Your task to perform on an android device: allow cookies in the chrome app Image 0: 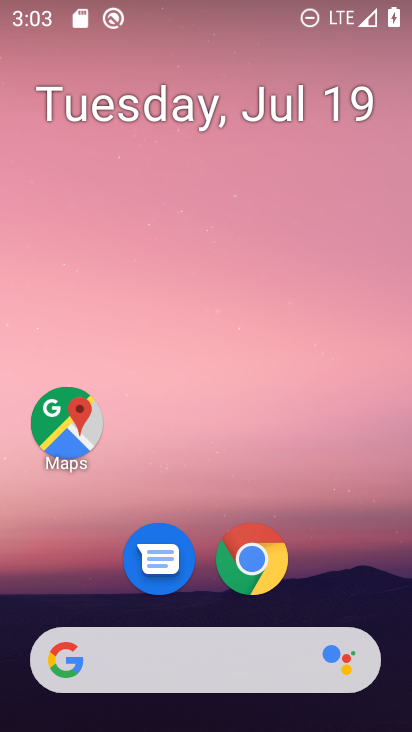
Step 0: drag from (215, 615) to (155, 115)
Your task to perform on an android device: allow cookies in the chrome app Image 1: 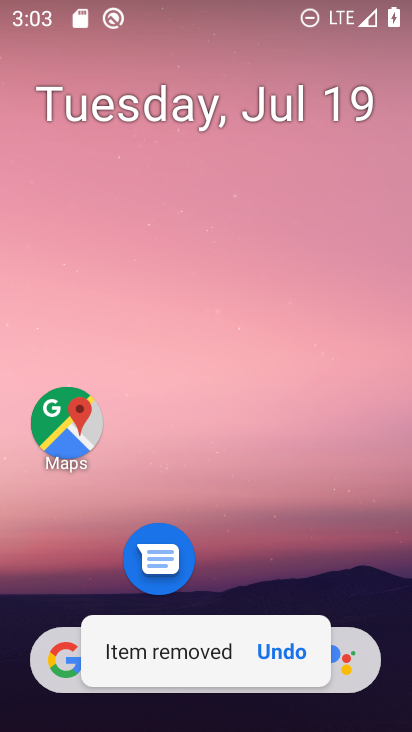
Step 1: click (310, 433)
Your task to perform on an android device: allow cookies in the chrome app Image 2: 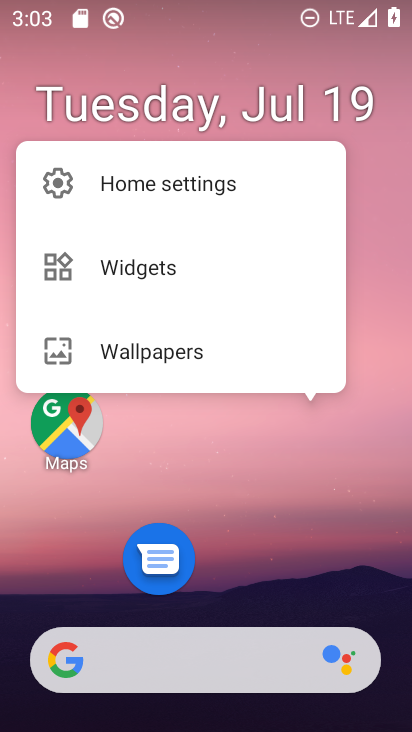
Step 2: click (283, 522)
Your task to perform on an android device: allow cookies in the chrome app Image 3: 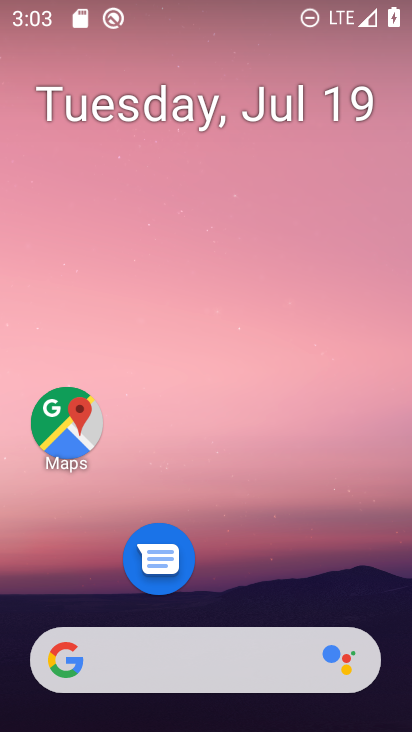
Step 3: drag from (237, 597) to (188, 2)
Your task to perform on an android device: allow cookies in the chrome app Image 4: 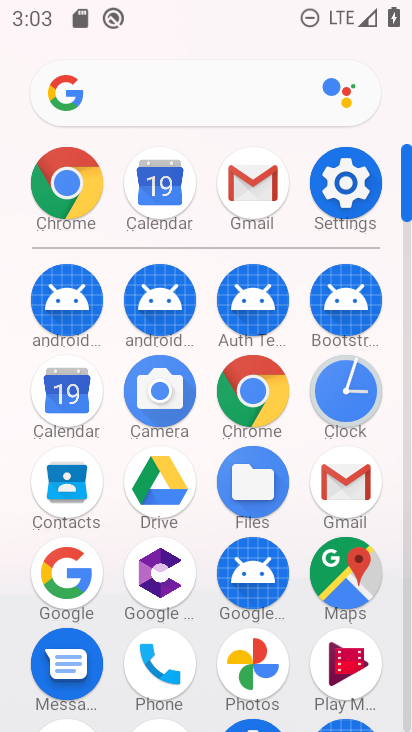
Step 4: click (83, 180)
Your task to perform on an android device: allow cookies in the chrome app Image 5: 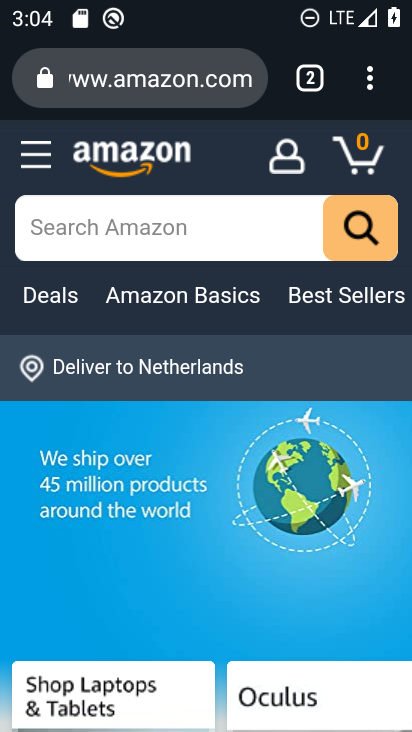
Step 5: click (364, 80)
Your task to perform on an android device: allow cookies in the chrome app Image 6: 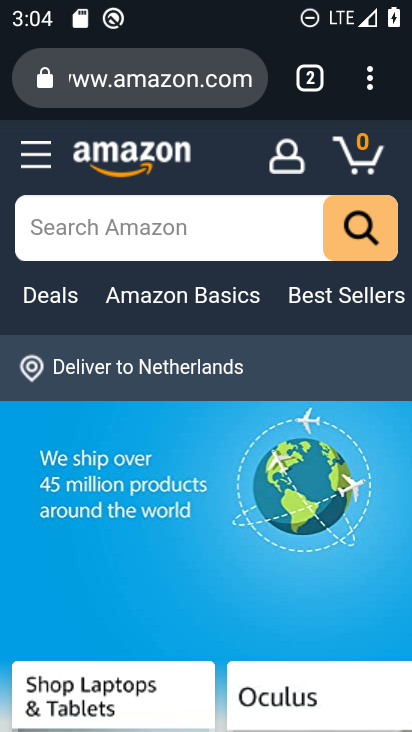
Step 6: click (369, 79)
Your task to perform on an android device: allow cookies in the chrome app Image 7: 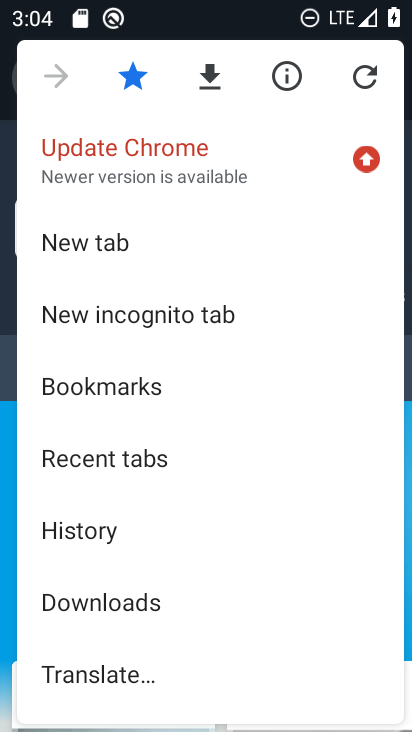
Step 7: drag from (151, 551) to (136, 69)
Your task to perform on an android device: allow cookies in the chrome app Image 8: 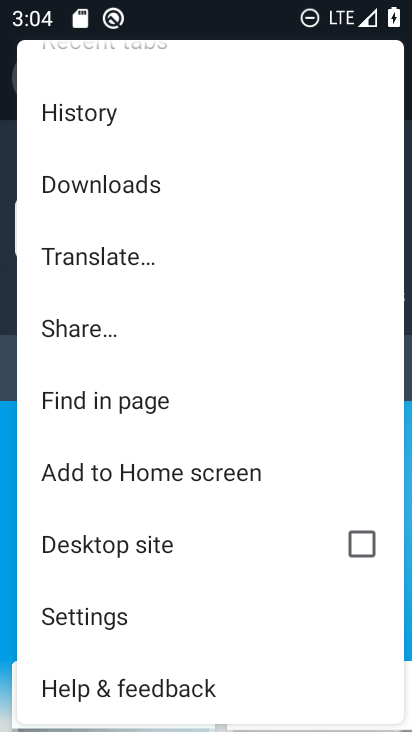
Step 8: click (98, 615)
Your task to perform on an android device: allow cookies in the chrome app Image 9: 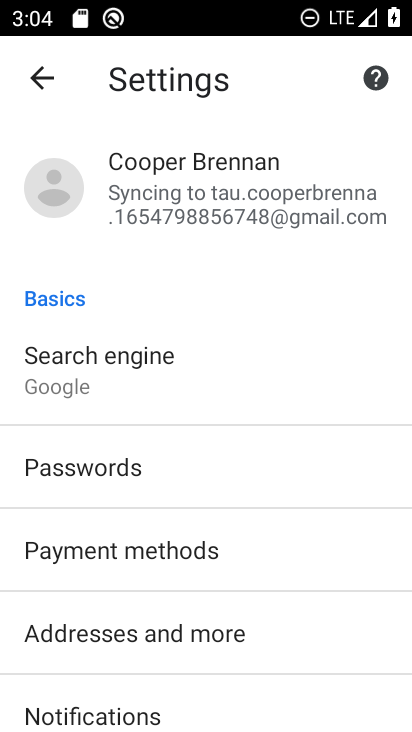
Step 9: drag from (149, 623) to (147, 358)
Your task to perform on an android device: allow cookies in the chrome app Image 10: 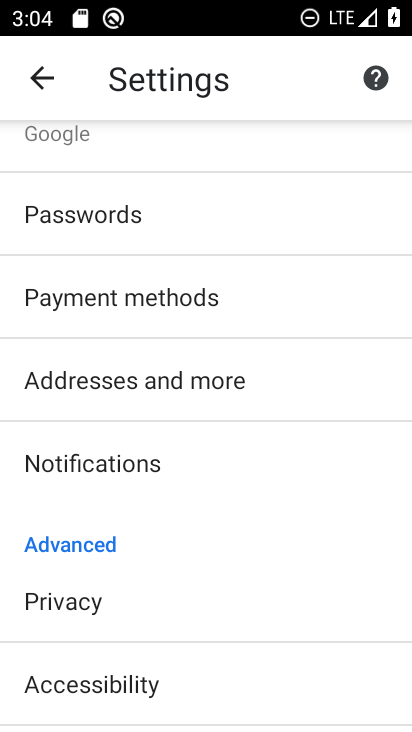
Step 10: drag from (113, 604) to (116, 329)
Your task to perform on an android device: allow cookies in the chrome app Image 11: 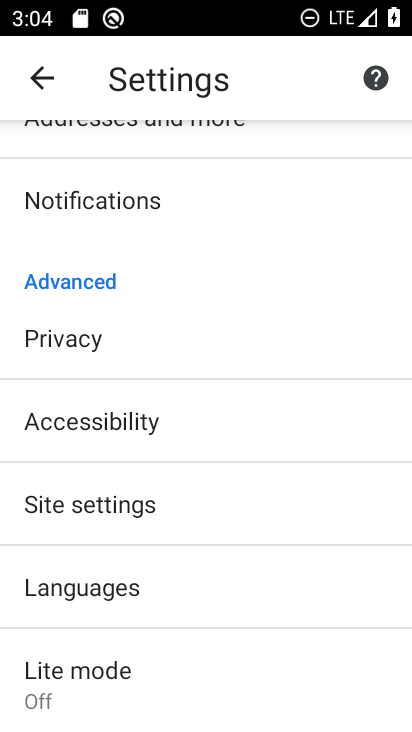
Step 11: click (141, 507)
Your task to perform on an android device: allow cookies in the chrome app Image 12: 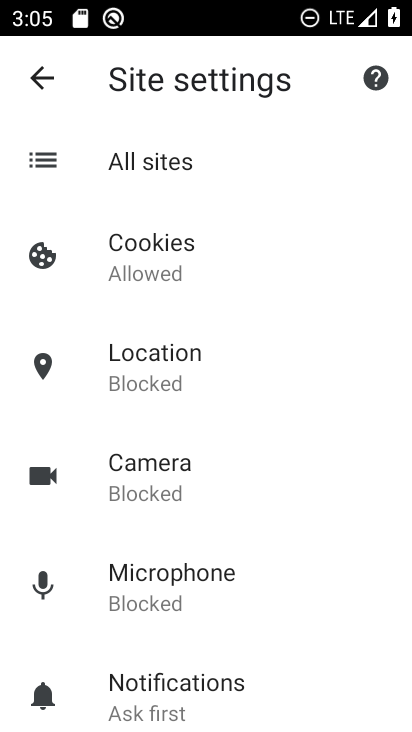
Step 12: drag from (137, 595) to (115, 326)
Your task to perform on an android device: allow cookies in the chrome app Image 13: 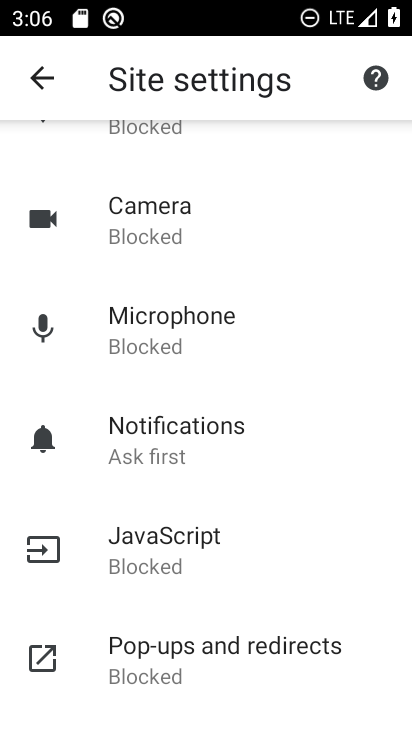
Step 13: drag from (166, 268) to (194, 693)
Your task to perform on an android device: allow cookies in the chrome app Image 14: 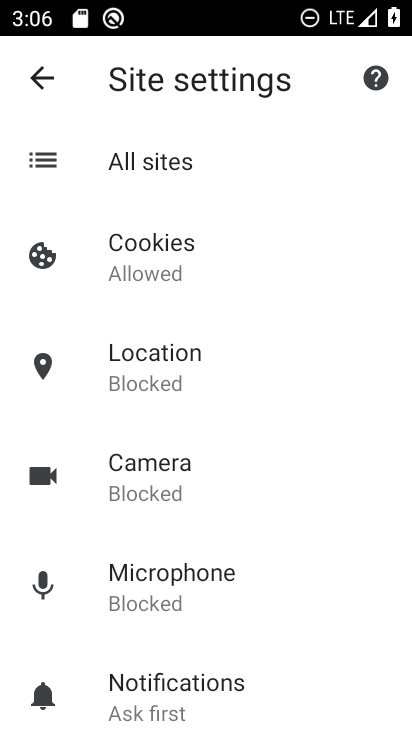
Step 14: click (132, 251)
Your task to perform on an android device: allow cookies in the chrome app Image 15: 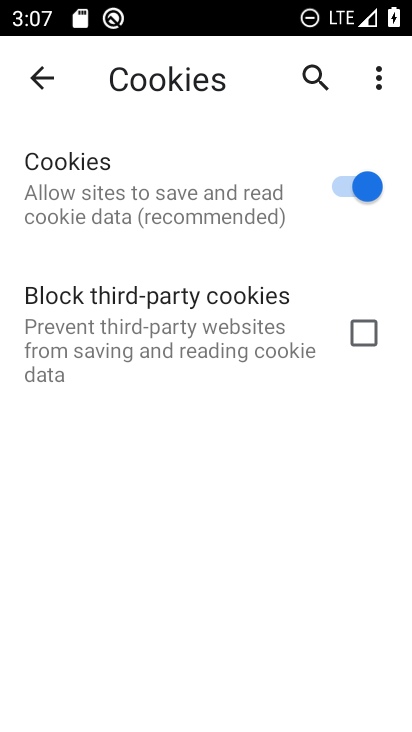
Step 15: task complete